Your task to perform on an android device: remove spam from my inbox in the gmail app Image 0: 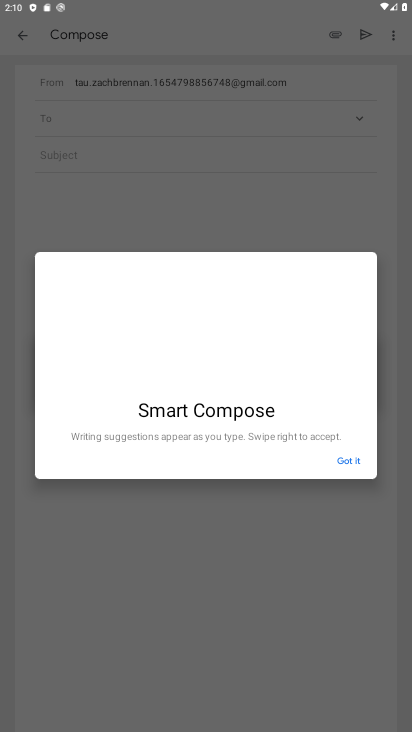
Step 0: press home button
Your task to perform on an android device: remove spam from my inbox in the gmail app Image 1: 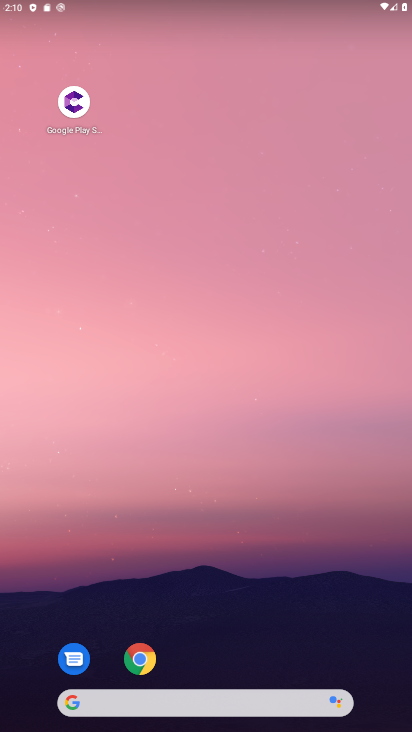
Step 1: drag from (193, 608) to (206, 346)
Your task to perform on an android device: remove spam from my inbox in the gmail app Image 2: 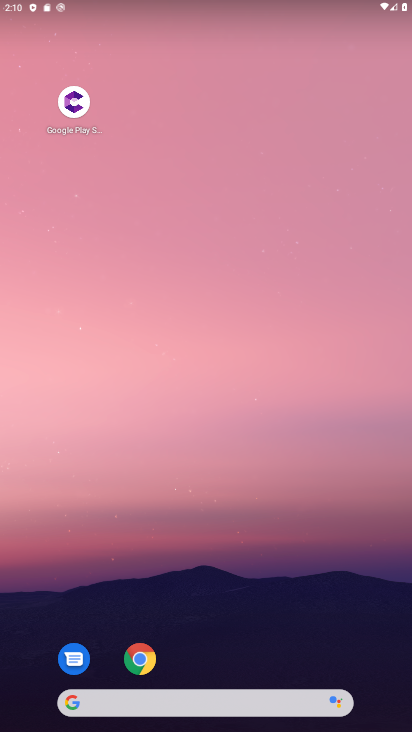
Step 2: drag from (276, 665) to (259, 290)
Your task to perform on an android device: remove spam from my inbox in the gmail app Image 3: 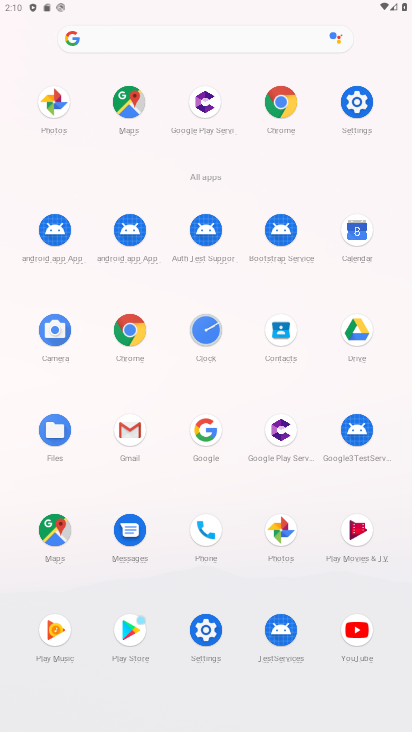
Step 3: click (122, 425)
Your task to perform on an android device: remove spam from my inbox in the gmail app Image 4: 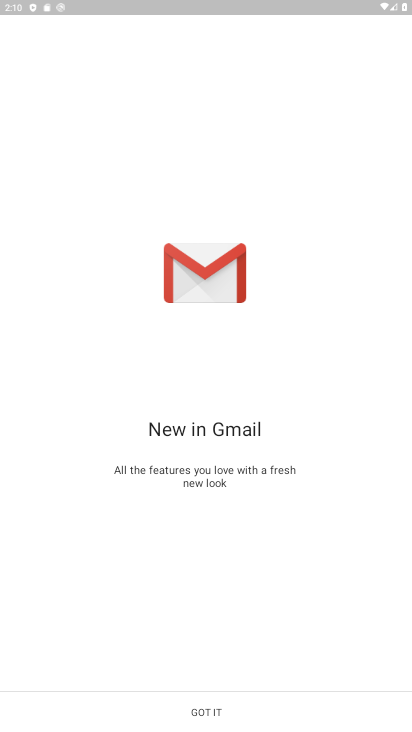
Step 4: click (195, 705)
Your task to perform on an android device: remove spam from my inbox in the gmail app Image 5: 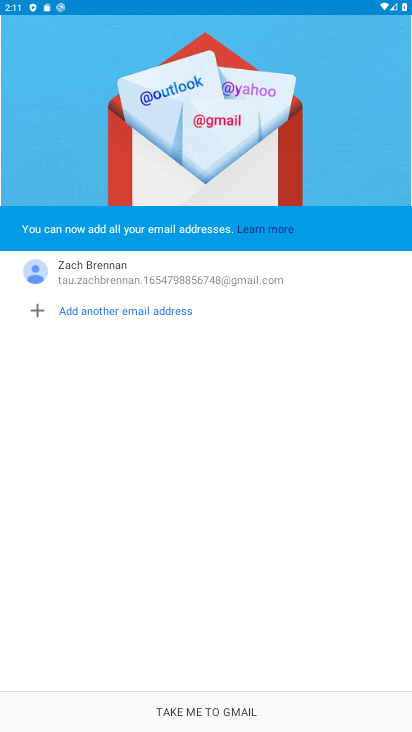
Step 5: click (195, 705)
Your task to perform on an android device: remove spam from my inbox in the gmail app Image 6: 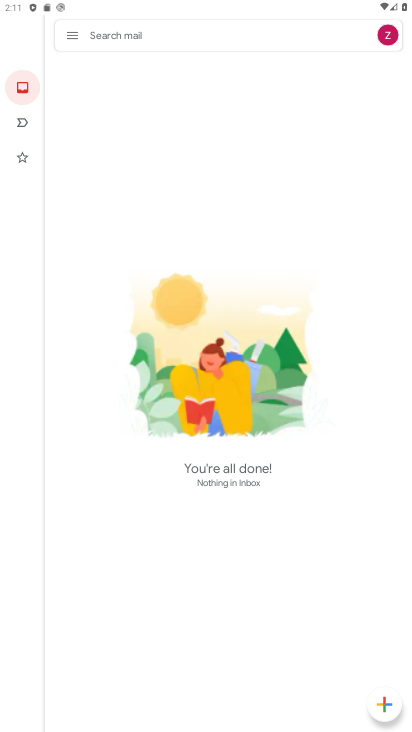
Step 6: click (68, 32)
Your task to perform on an android device: remove spam from my inbox in the gmail app Image 7: 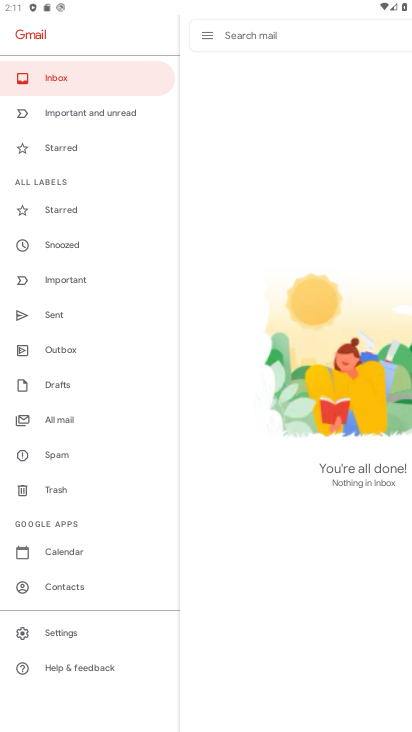
Step 7: click (43, 457)
Your task to perform on an android device: remove spam from my inbox in the gmail app Image 8: 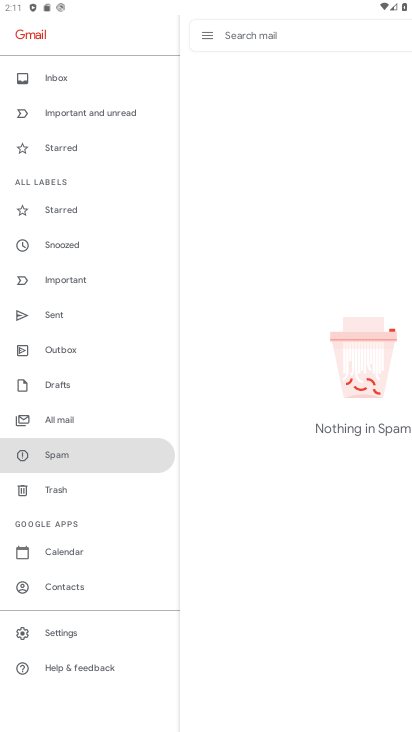
Step 8: task complete